Your task to perform on an android device: choose inbox layout in the gmail app Image 0: 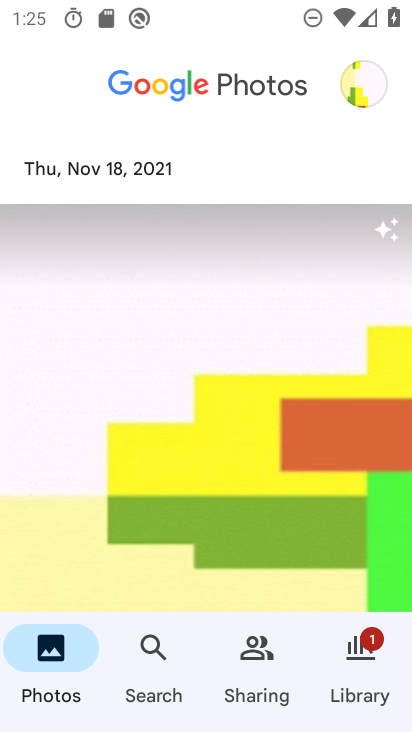
Step 0: press home button
Your task to perform on an android device: choose inbox layout in the gmail app Image 1: 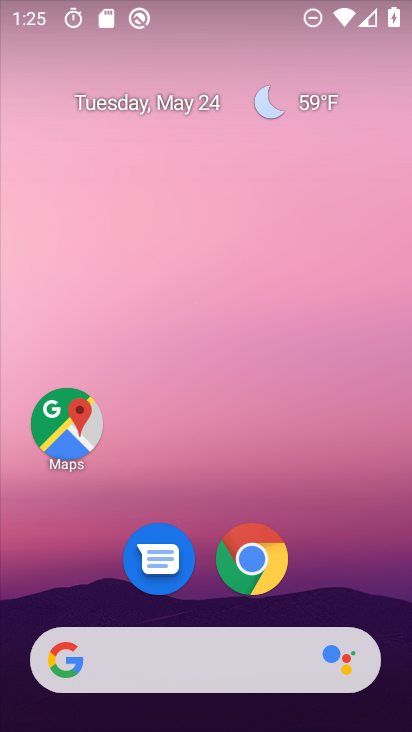
Step 1: drag from (402, 694) to (333, 190)
Your task to perform on an android device: choose inbox layout in the gmail app Image 2: 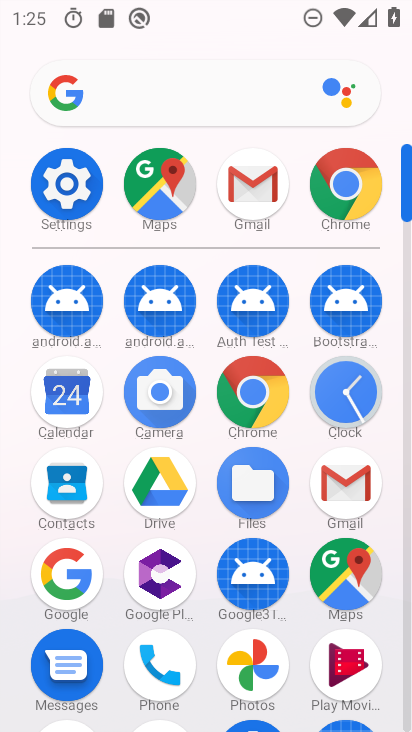
Step 2: click (353, 504)
Your task to perform on an android device: choose inbox layout in the gmail app Image 3: 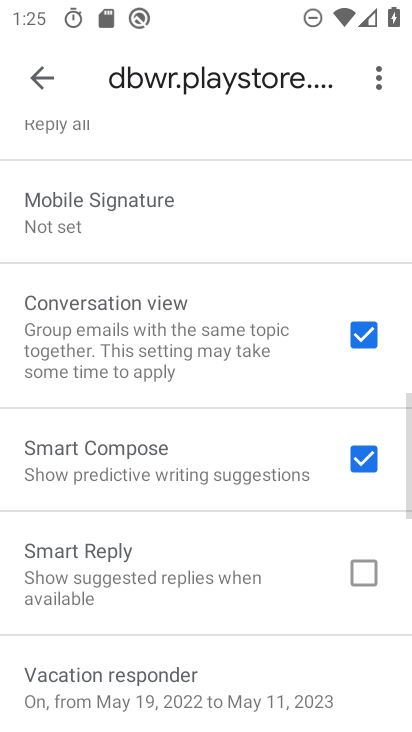
Step 3: click (25, 73)
Your task to perform on an android device: choose inbox layout in the gmail app Image 4: 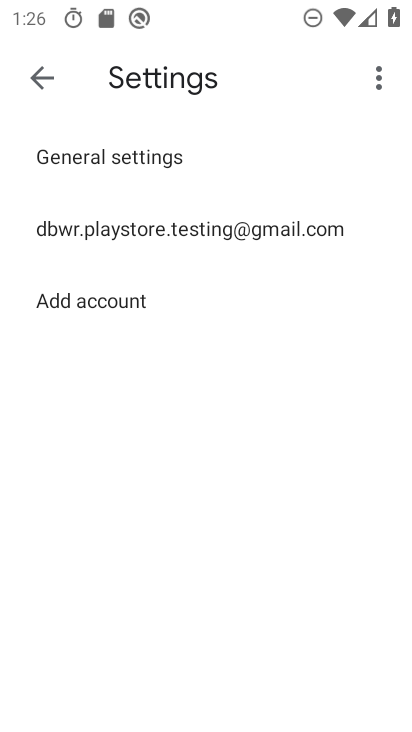
Step 4: click (75, 232)
Your task to perform on an android device: choose inbox layout in the gmail app Image 5: 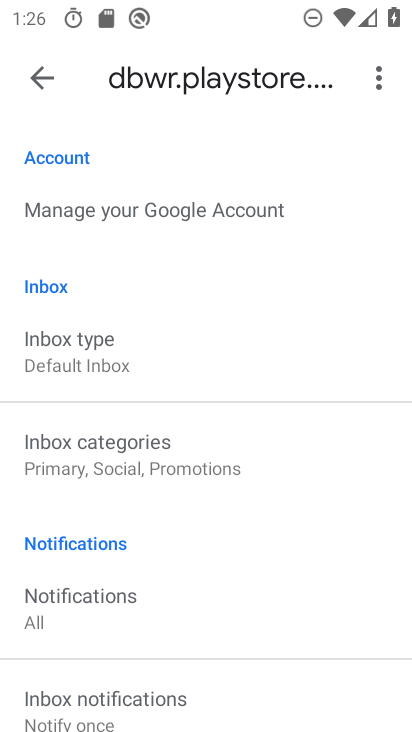
Step 5: click (77, 346)
Your task to perform on an android device: choose inbox layout in the gmail app Image 6: 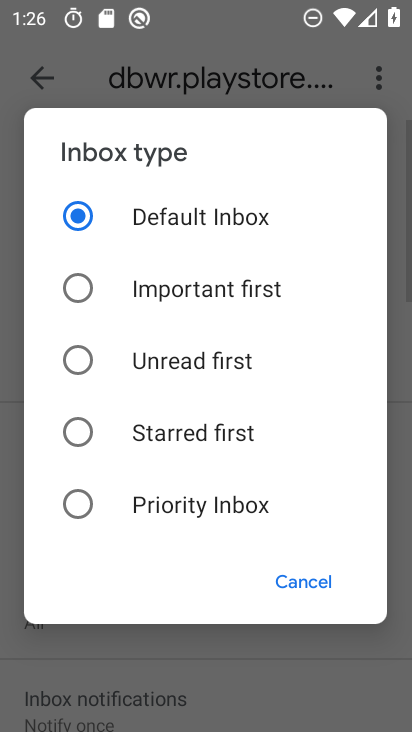
Step 6: click (77, 499)
Your task to perform on an android device: choose inbox layout in the gmail app Image 7: 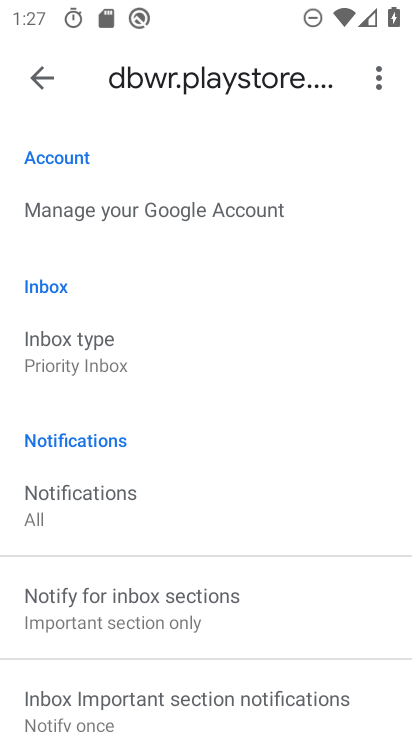
Step 7: task complete